Your task to perform on an android device: Search for seafood restaurants on Google Maps Image 0: 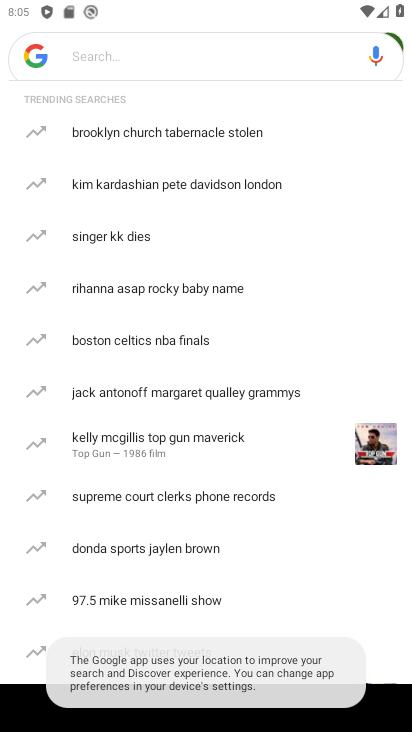
Step 0: press home button
Your task to perform on an android device: Search for seafood restaurants on Google Maps Image 1: 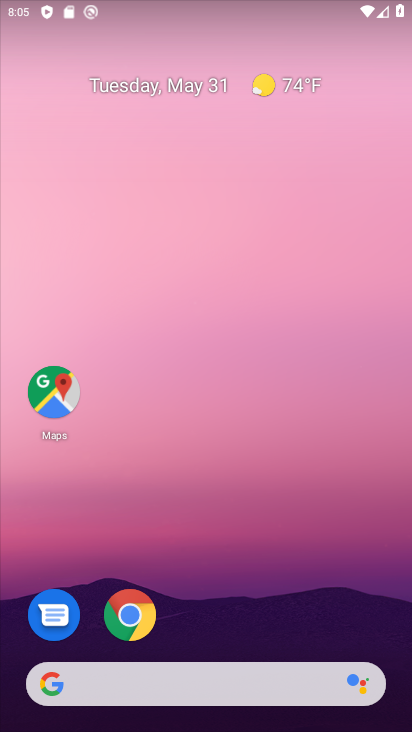
Step 1: click (60, 400)
Your task to perform on an android device: Search for seafood restaurants on Google Maps Image 2: 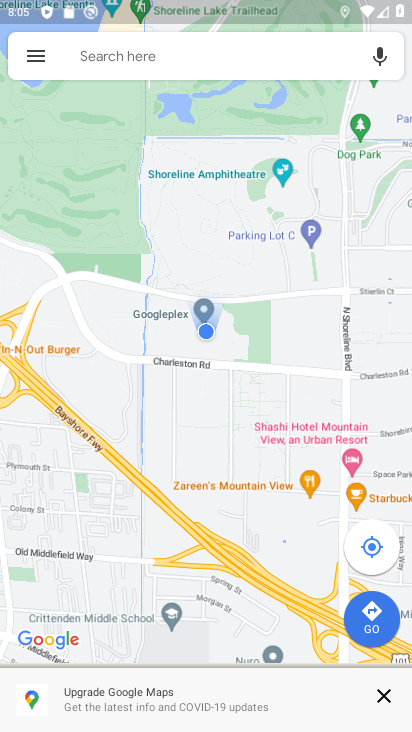
Step 2: click (167, 59)
Your task to perform on an android device: Search for seafood restaurants on Google Maps Image 3: 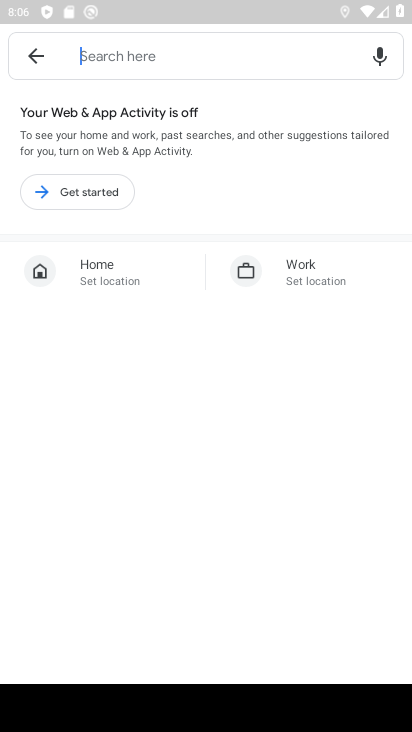
Step 3: type "seafood"
Your task to perform on an android device: Search for seafood restaurants on Google Maps Image 4: 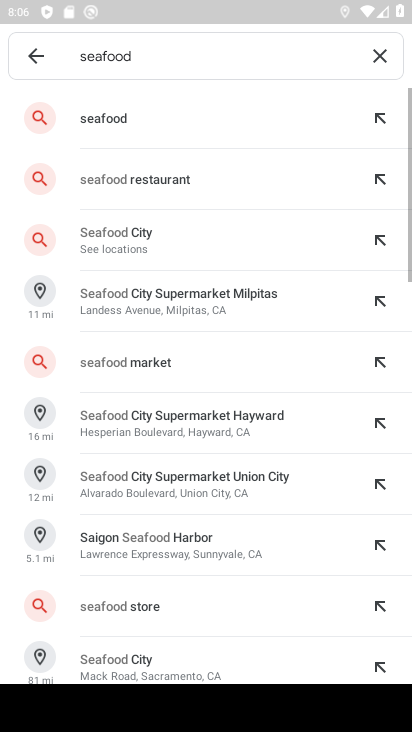
Step 4: click (155, 183)
Your task to perform on an android device: Search for seafood restaurants on Google Maps Image 5: 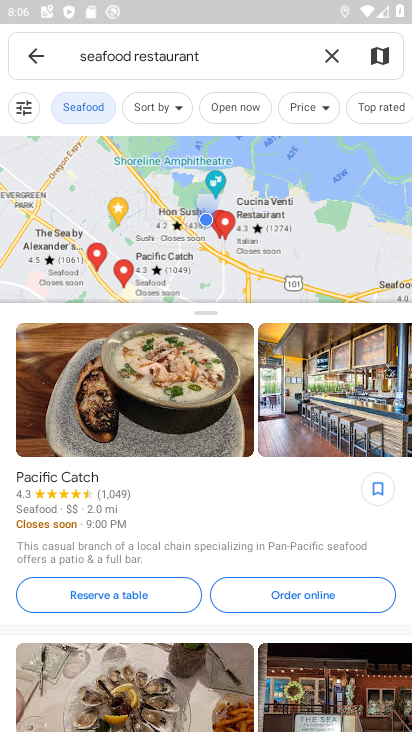
Step 5: task complete